Your task to perform on an android device: Open the phone app and click the voicemail tab. Image 0: 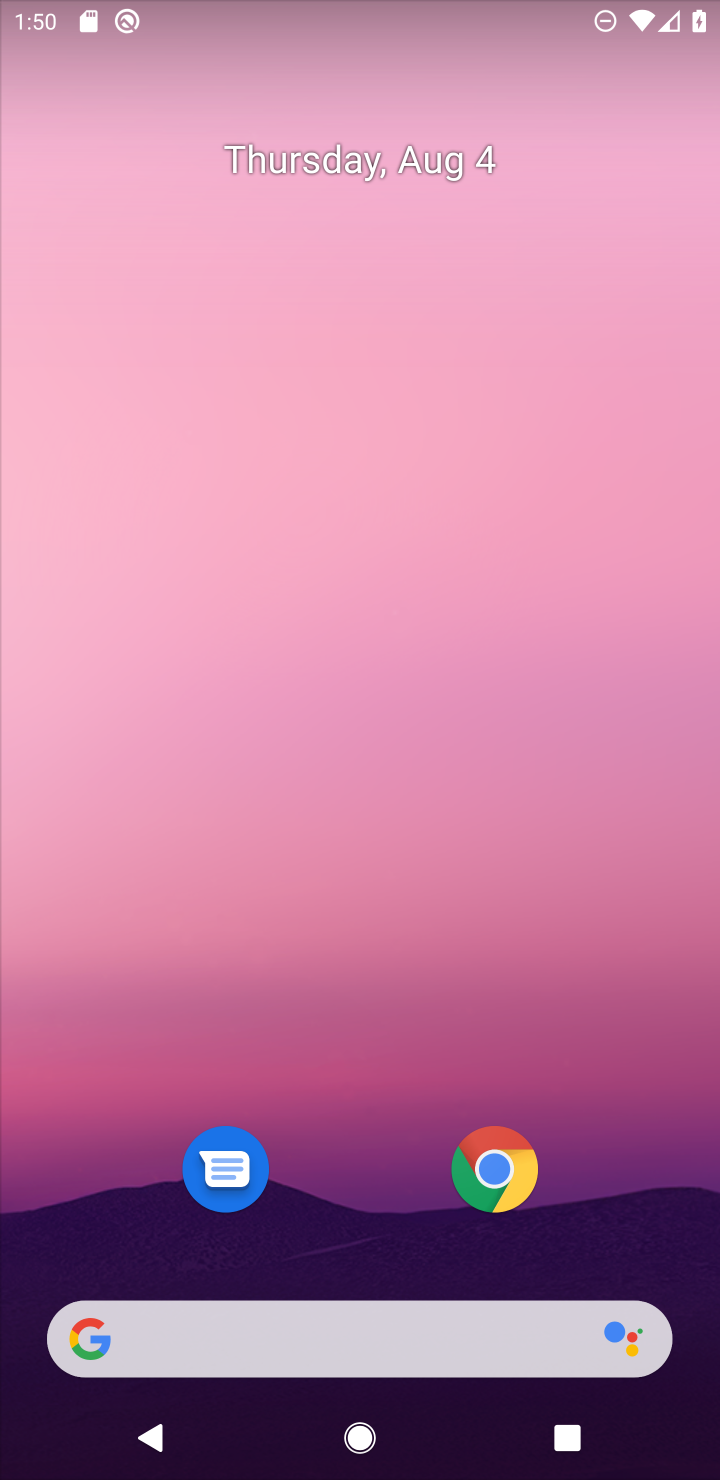
Step 0: drag from (390, 1198) to (383, 11)
Your task to perform on an android device: Open the phone app and click the voicemail tab. Image 1: 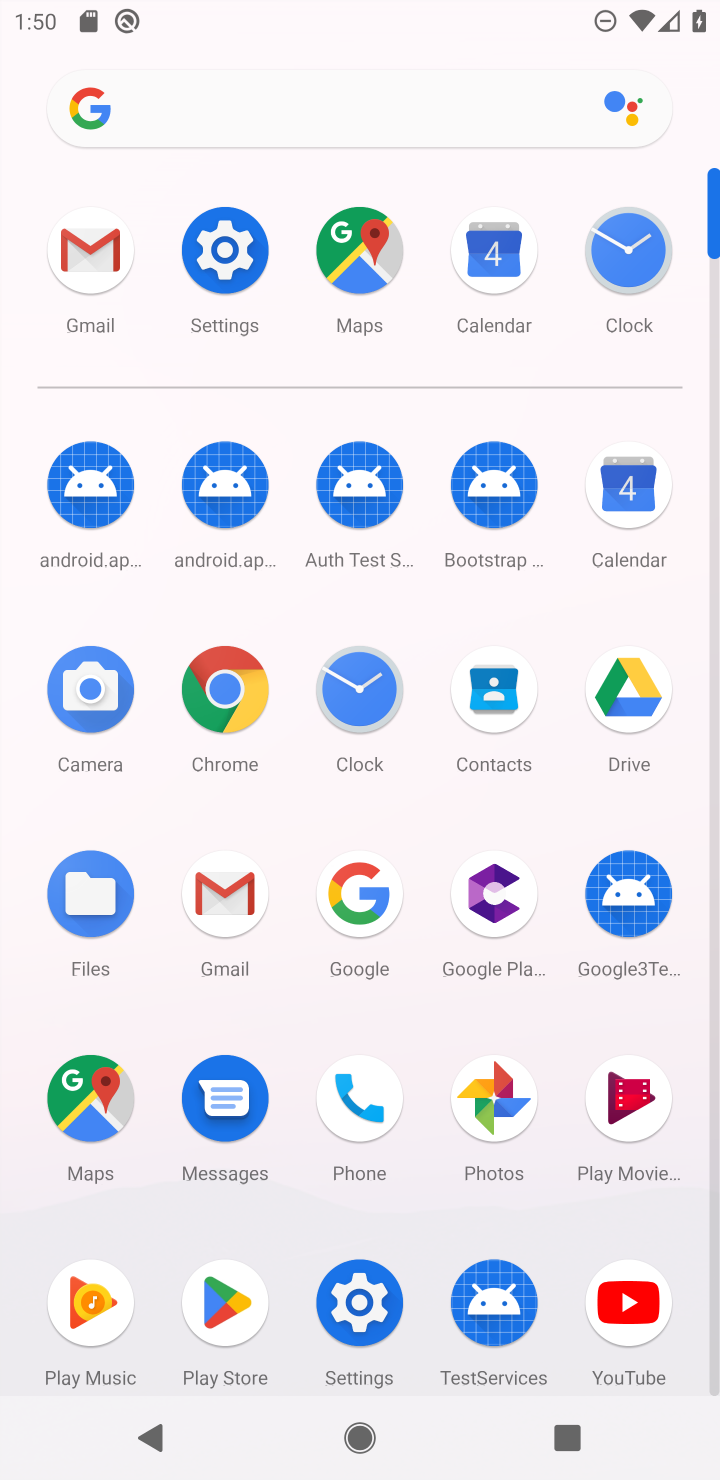
Step 1: click (358, 1102)
Your task to perform on an android device: Open the phone app and click the voicemail tab. Image 2: 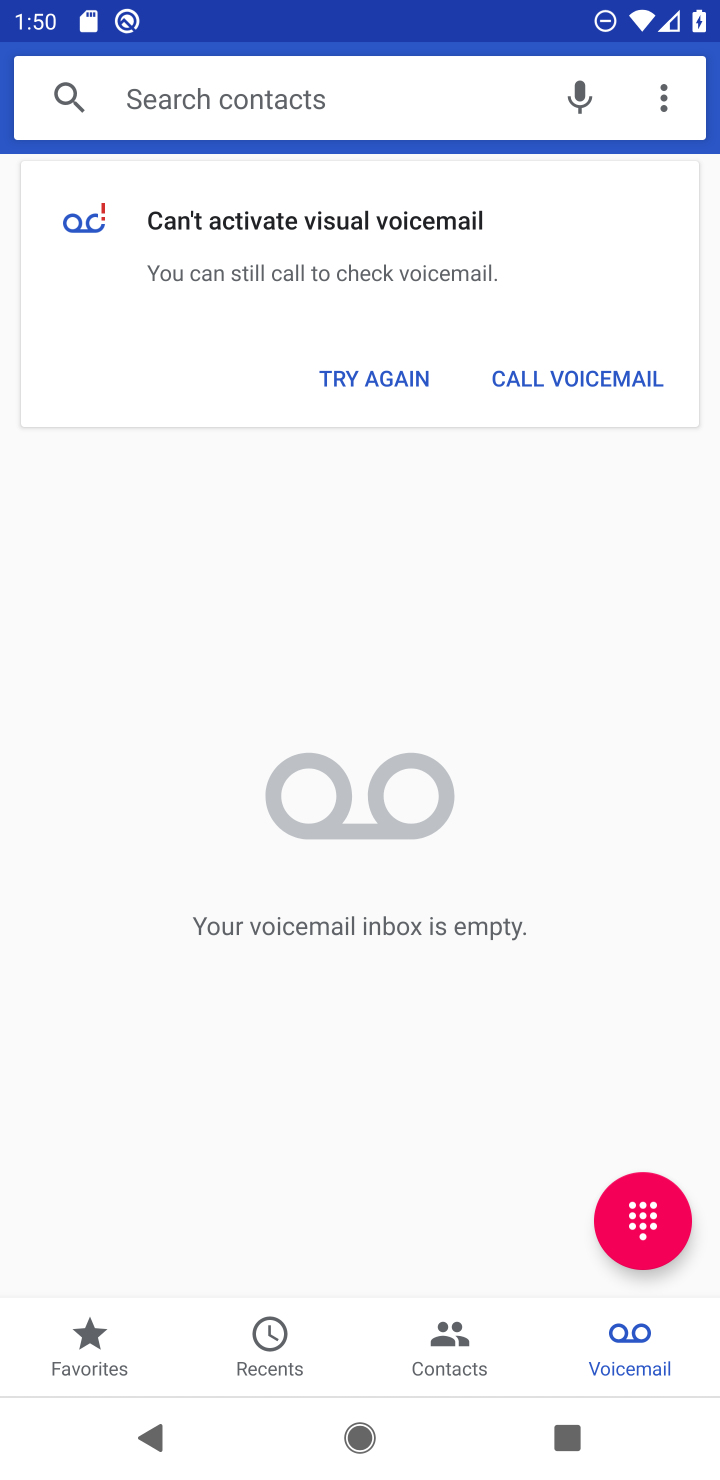
Step 2: click (637, 1354)
Your task to perform on an android device: Open the phone app and click the voicemail tab. Image 3: 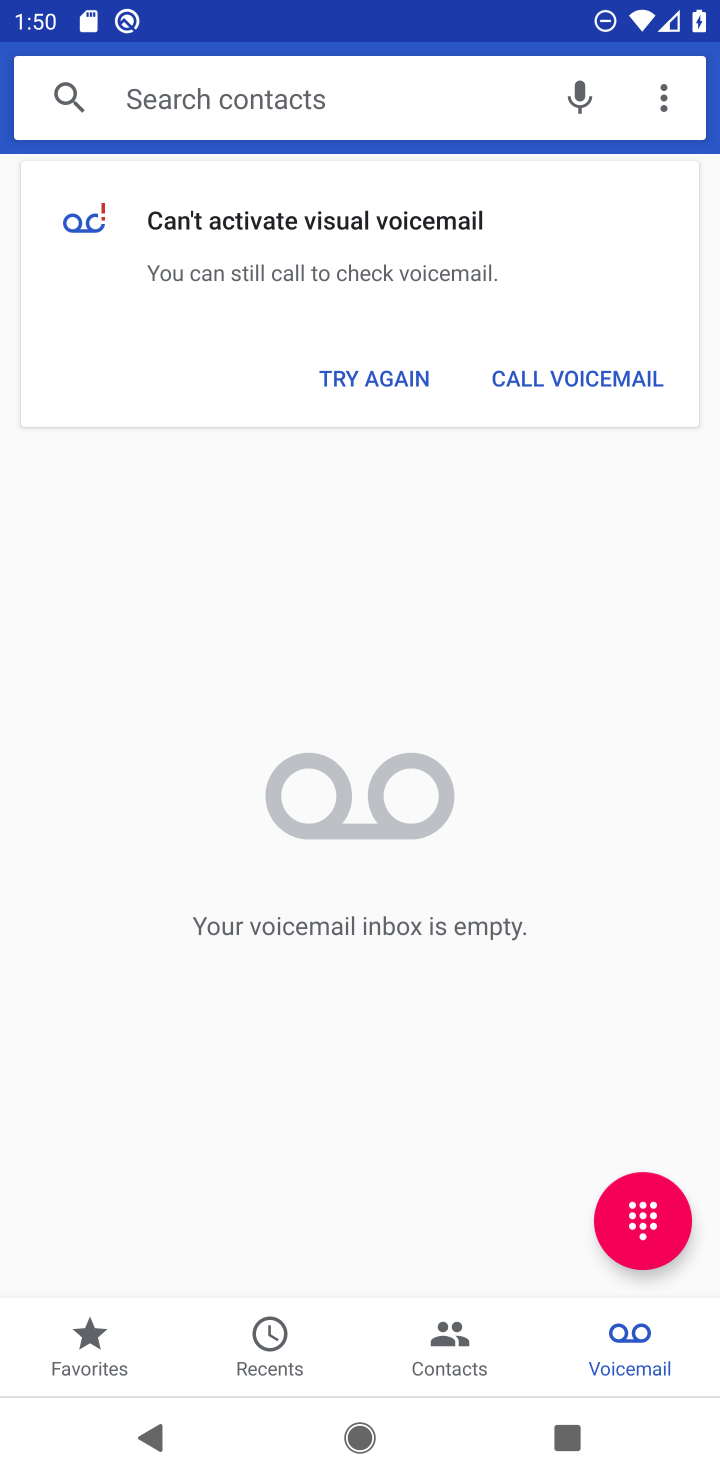
Step 3: task complete